Your task to perform on an android device: Open the Play Movies app and select the watchlist tab. Image 0: 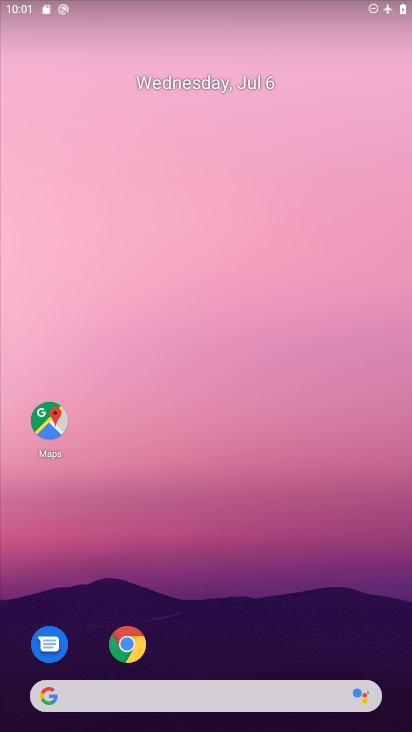
Step 0: drag from (230, 632) to (247, 151)
Your task to perform on an android device: Open the Play Movies app and select the watchlist tab. Image 1: 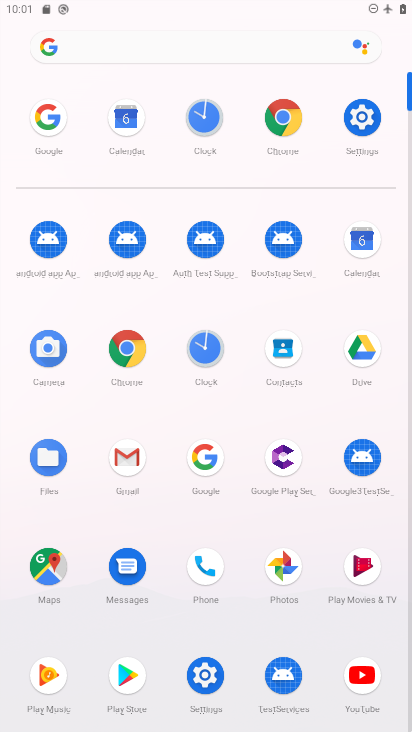
Step 1: click (340, 576)
Your task to perform on an android device: Open the Play Movies app and select the watchlist tab. Image 2: 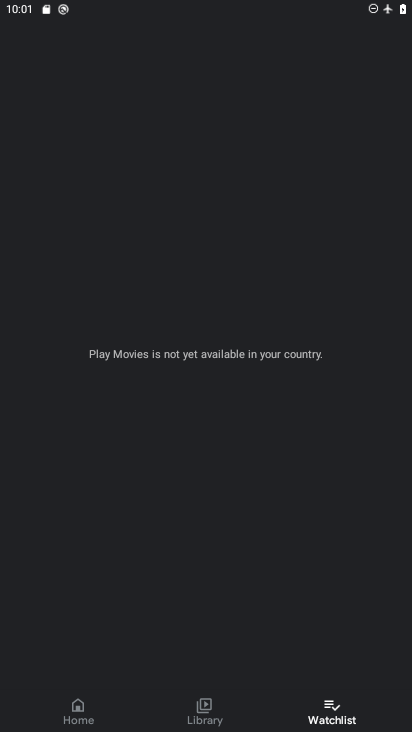
Step 2: task complete